Your task to perform on an android device: delete location history Image 0: 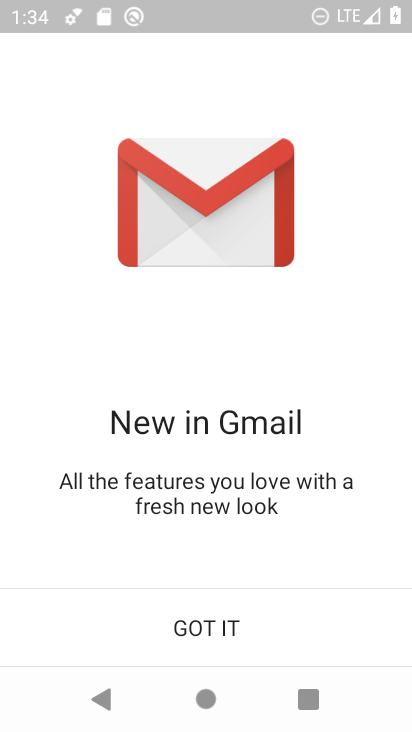
Step 0: click (194, 621)
Your task to perform on an android device: delete location history Image 1: 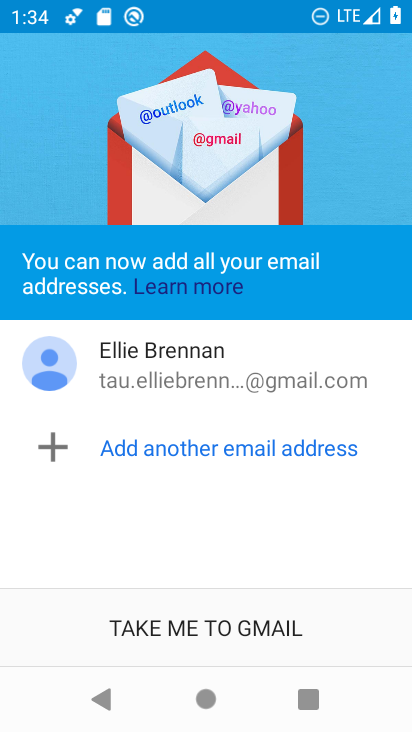
Step 1: click (219, 627)
Your task to perform on an android device: delete location history Image 2: 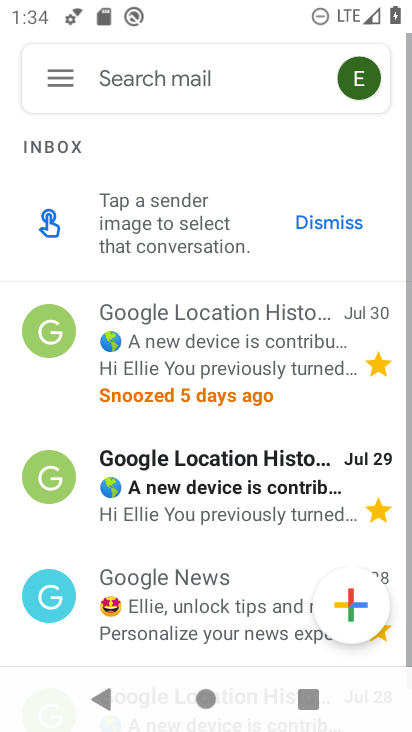
Step 2: task complete